Your task to perform on an android device: Is it going to rain today? Image 0: 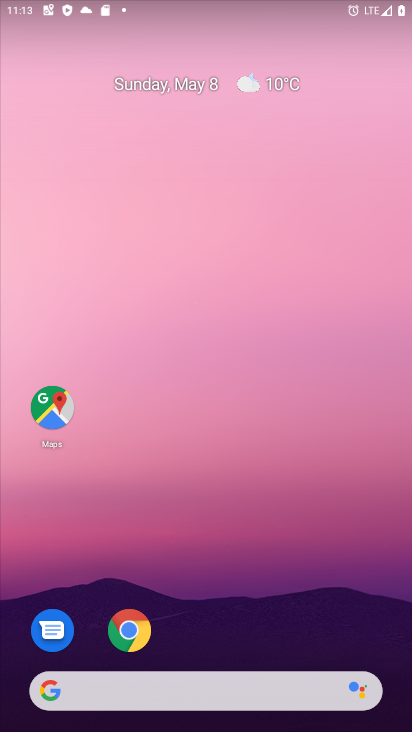
Step 0: click (203, 680)
Your task to perform on an android device: Is it going to rain today? Image 1: 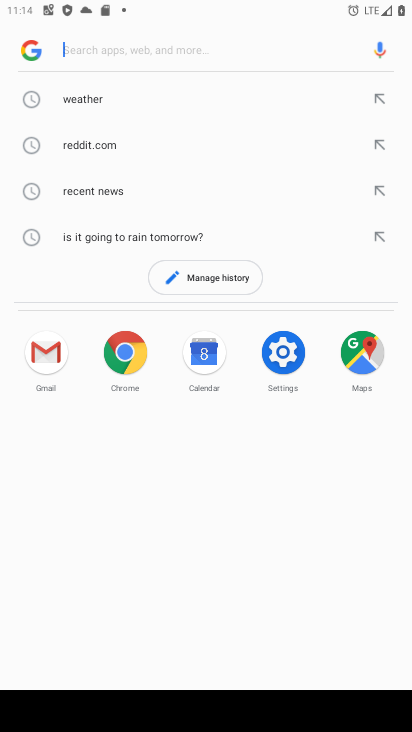
Step 1: type "Is it going to rain today?"
Your task to perform on an android device: Is it going to rain today? Image 2: 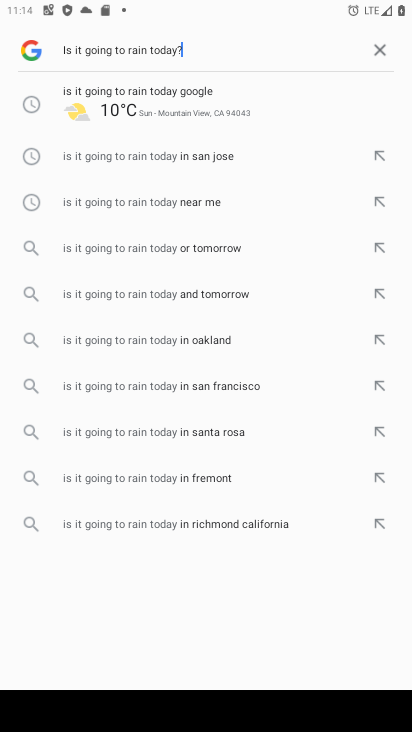
Step 2: click (121, 95)
Your task to perform on an android device: Is it going to rain today? Image 3: 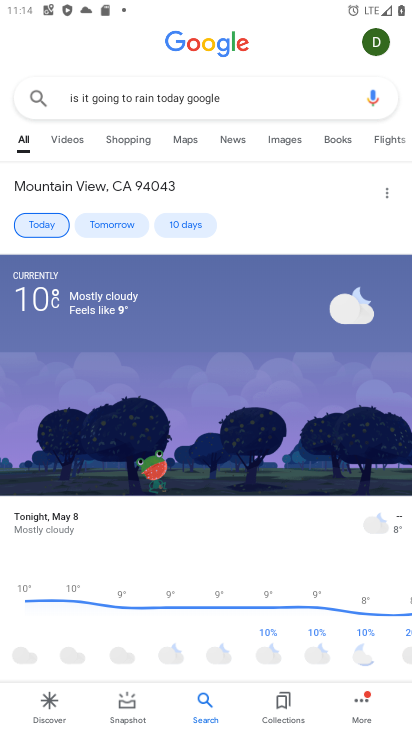
Step 3: task complete